Your task to perform on an android device: Clear all items from cart on ebay.com. Image 0: 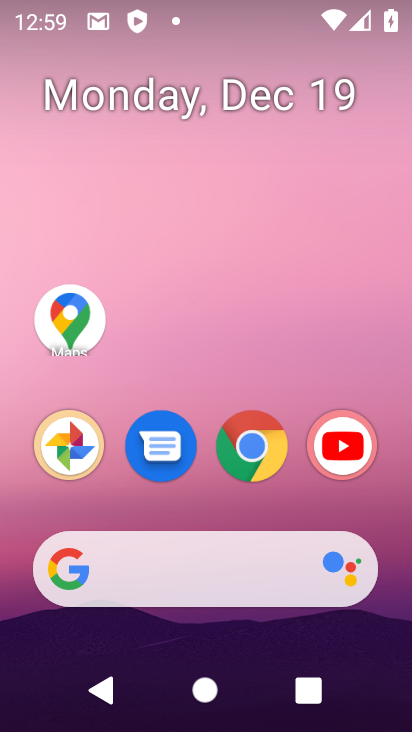
Step 0: click (253, 439)
Your task to perform on an android device: Clear all items from cart on ebay.com. Image 1: 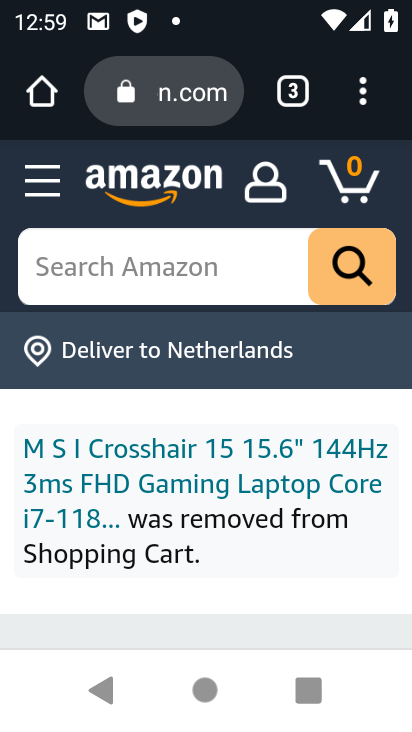
Step 1: click (173, 102)
Your task to perform on an android device: Clear all items from cart on ebay.com. Image 2: 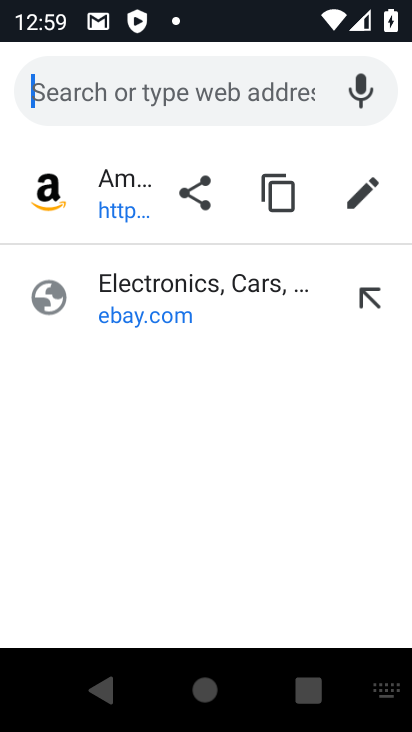
Step 2: type "ebay"
Your task to perform on an android device: Clear all items from cart on ebay.com. Image 3: 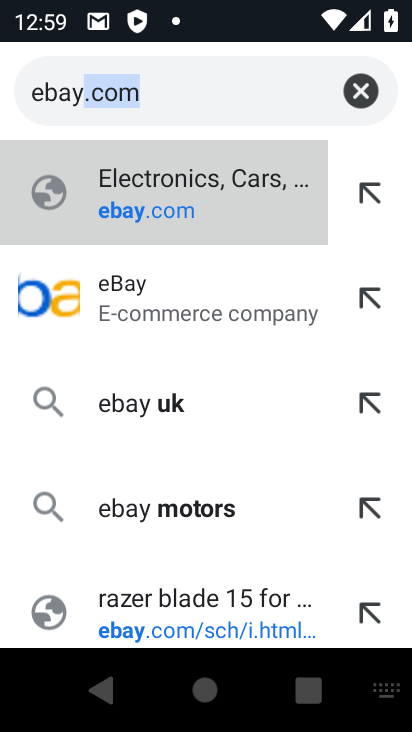
Step 3: click (187, 210)
Your task to perform on an android device: Clear all items from cart on ebay.com. Image 4: 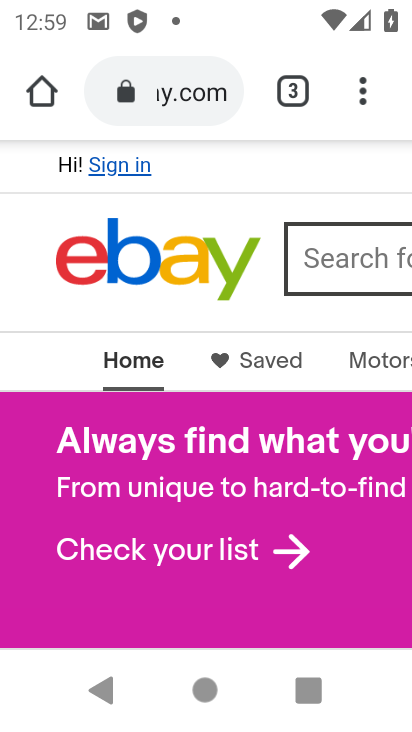
Step 4: click (337, 257)
Your task to perform on an android device: Clear all items from cart on ebay.com. Image 5: 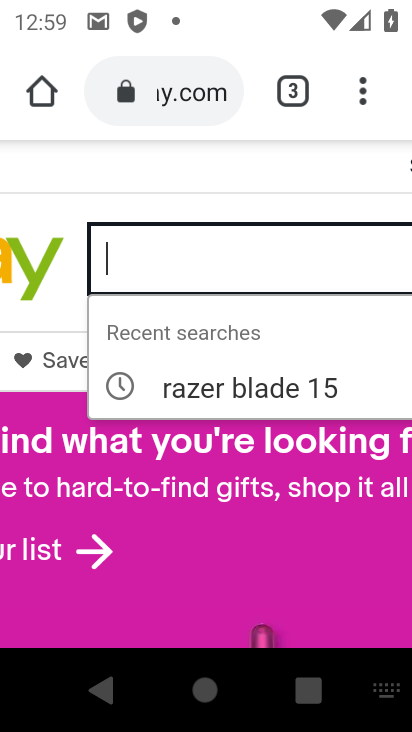
Step 5: drag from (325, 188) to (18, 193)
Your task to perform on an android device: Clear all items from cart on ebay.com. Image 6: 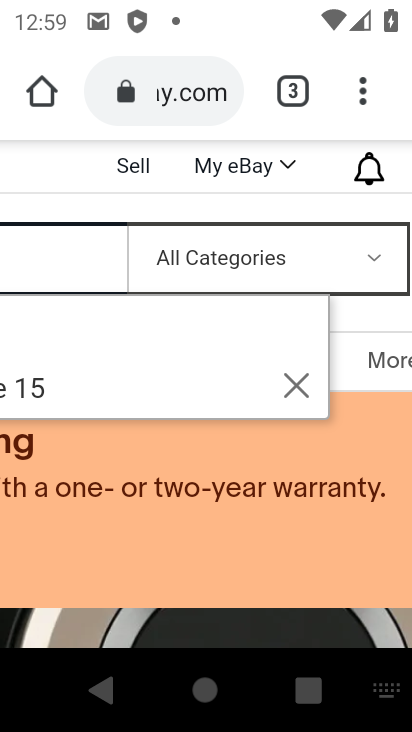
Step 6: drag from (368, 200) to (53, 215)
Your task to perform on an android device: Clear all items from cart on ebay.com. Image 7: 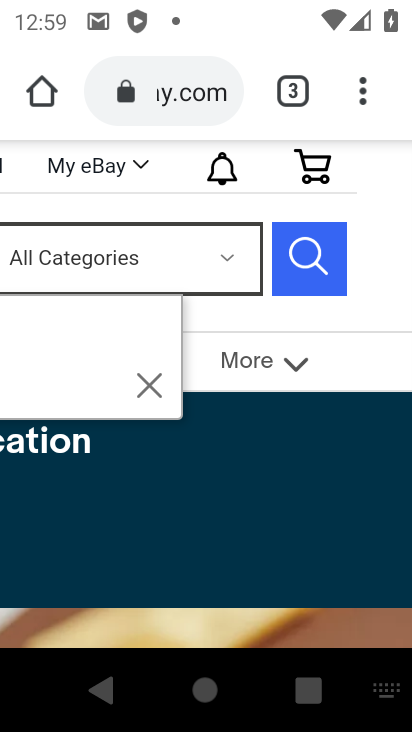
Step 7: click (314, 182)
Your task to perform on an android device: Clear all items from cart on ebay.com. Image 8: 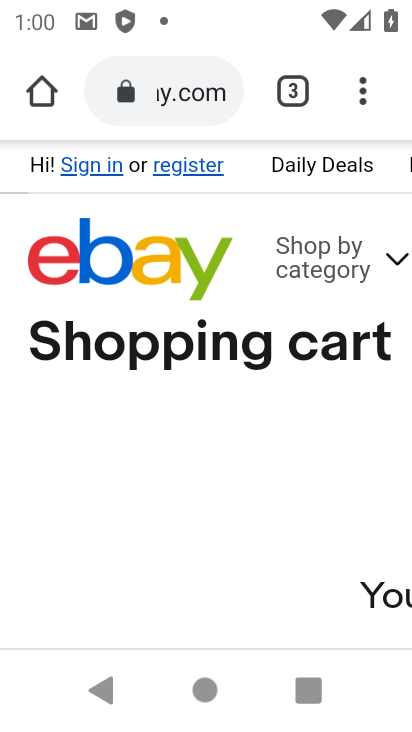
Step 8: task complete